Your task to perform on an android device: open chrome privacy settings Image 0: 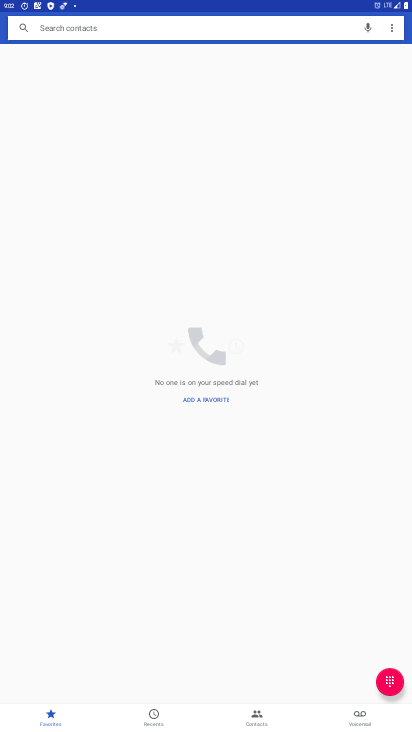
Step 0: press home button
Your task to perform on an android device: open chrome privacy settings Image 1: 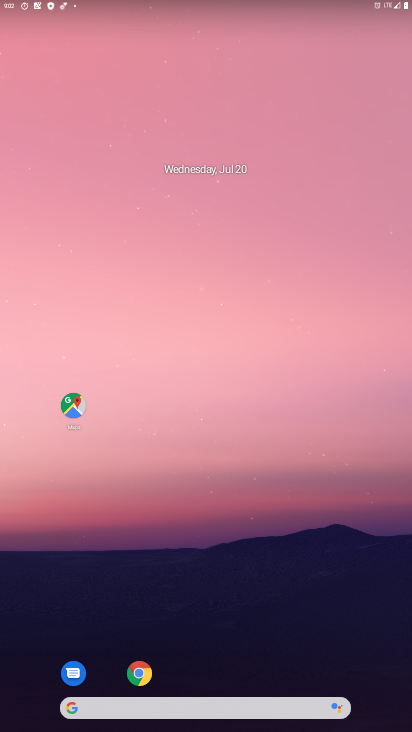
Step 1: click (143, 674)
Your task to perform on an android device: open chrome privacy settings Image 2: 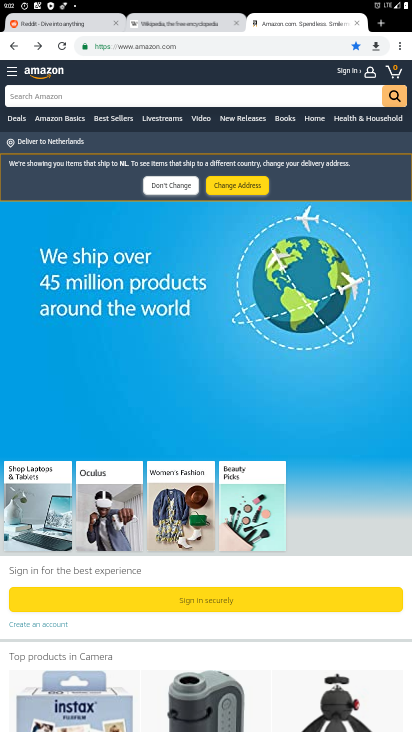
Step 2: click (395, 48)
Your task to perform on an android device: open chrome privacy settings Image 3: 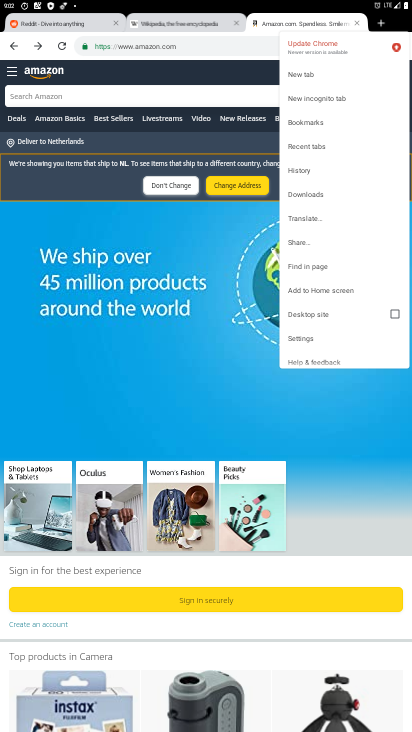
Step 3: click (296, 337)
Your task to perform on an android device: open chrome privacy settings Image 4: 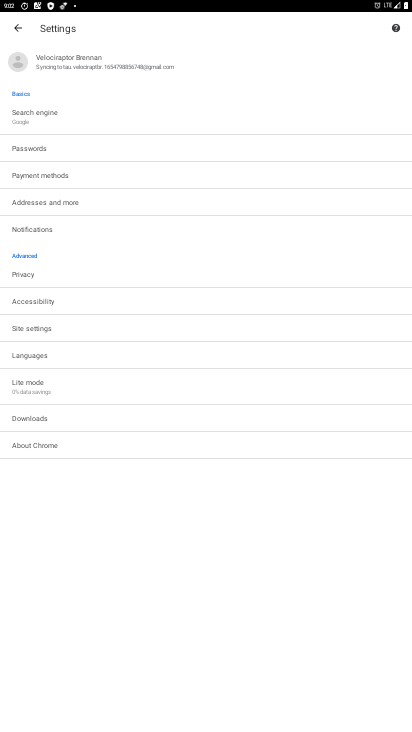
Step 4: click (50, 272)
Your task to perform on an android device: open chrome privacy settings Image 5: 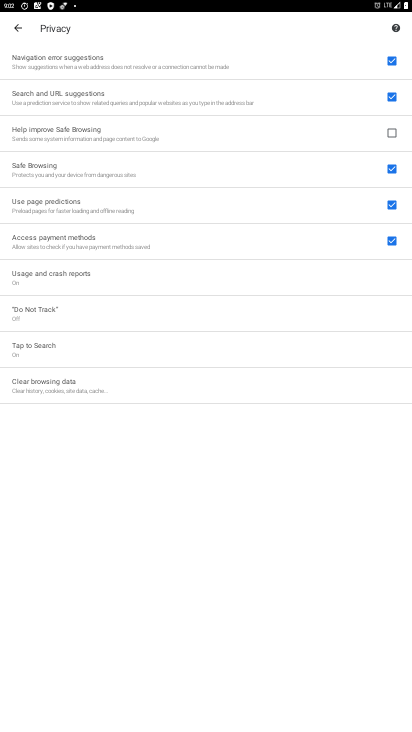
Step 5: task complete